Your task to perform on an android device: Go to eBay Image 0: 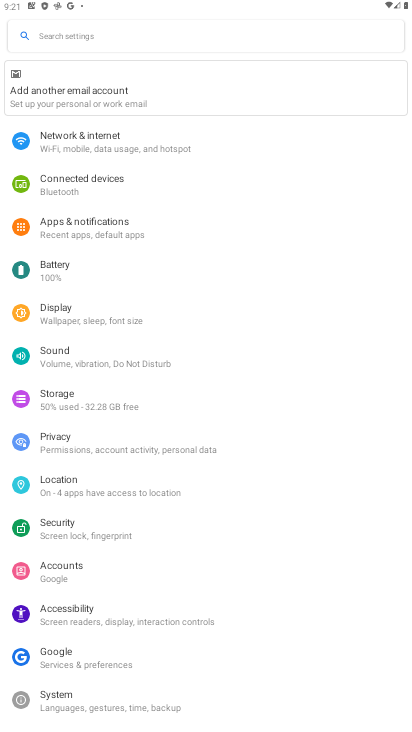
Step 0: press home button
Your task to perform on an android device: Go to eBay Image 1: 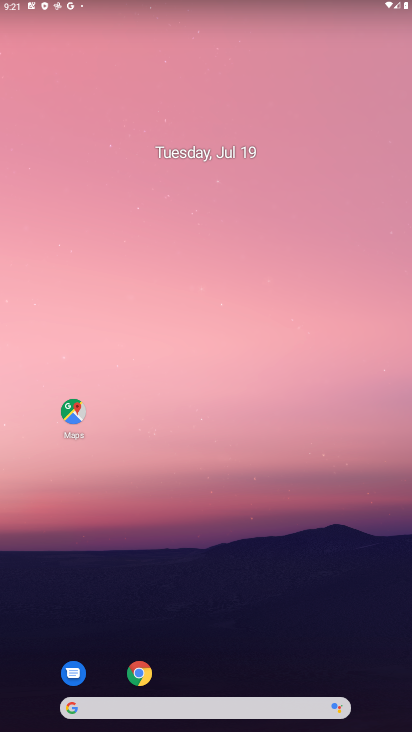
Step 1: click (226, 720)
Your task to perform on an android device: Go to eBay Image 2: 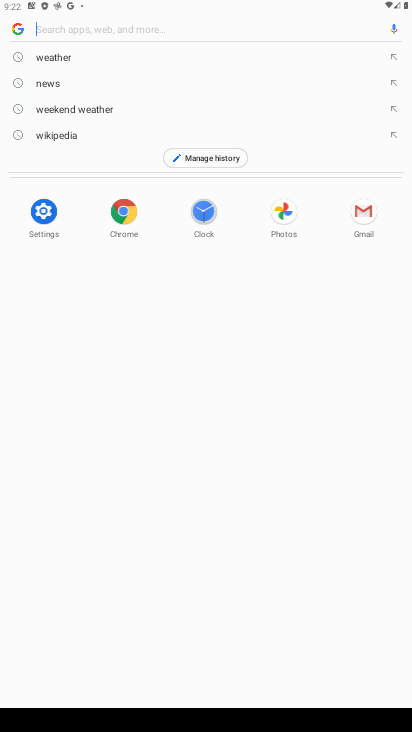
Step 2: type "ebay..con"
Your task to perform on an android device: Go to eBay Image 3: 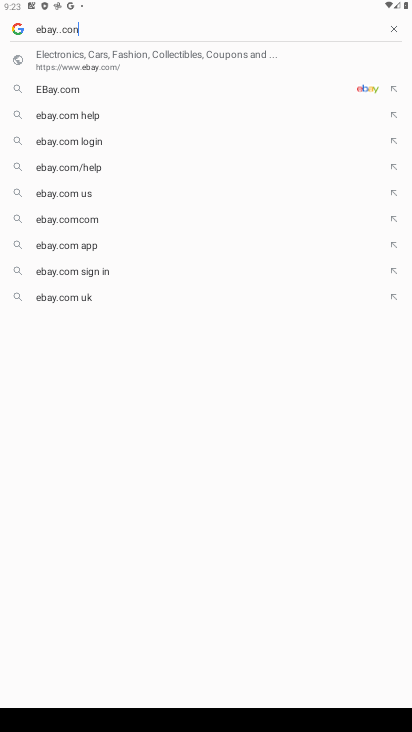
Step 3: click (142, 51)
Your task to perform on an android device: Go to eBay Image 4: 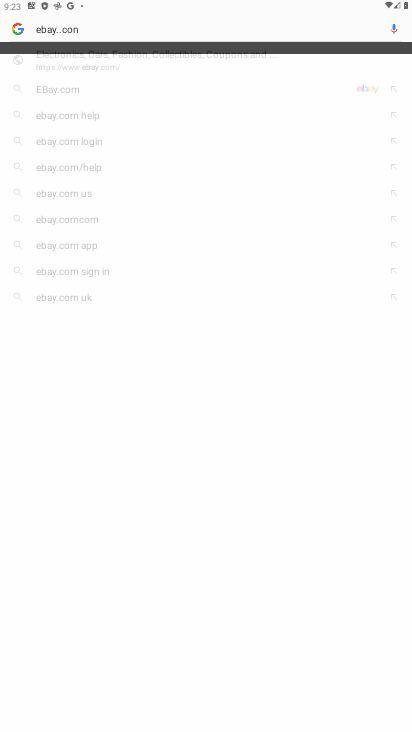
Step 4: task complete